Your task to perform on an android device: Show me the alarms in the clock app Image 0: 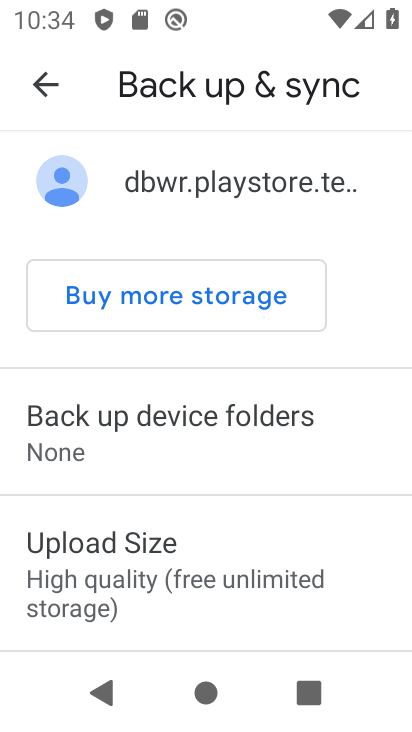
Step 0: press home button
Your task to perform on an android device: Show me the alarms in the clock app Image 1: 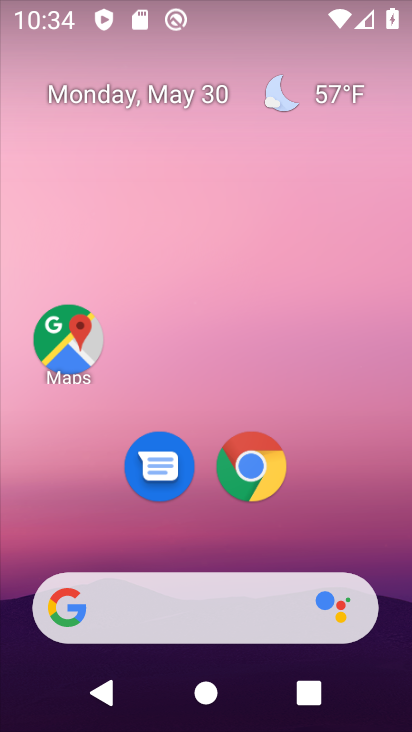
Step 1: drag from (126, 574) to (216, 76)
Your task to perform on an android device: Show me the alarms in the clock app Image 2: 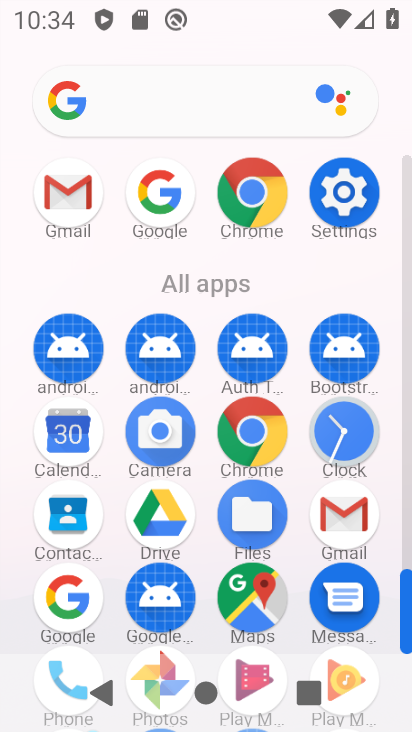
Step 2: click (351, 438)
Your task to perform on an android device: Show me the alarms in the clock app Image 3: 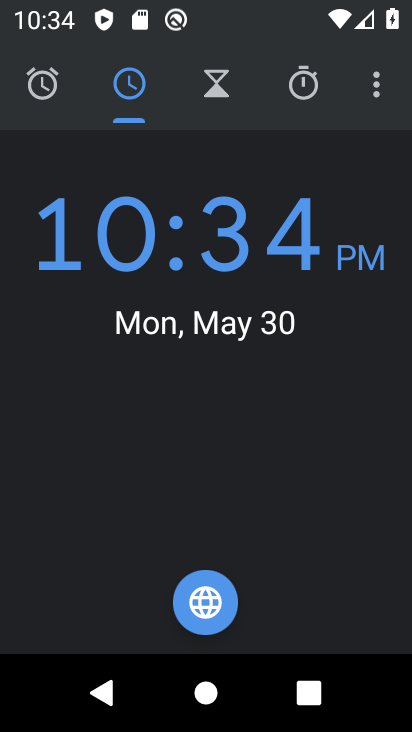
Step 3: click (75, 87)
Your task to perform on an android device: Show me the alarms in the clock app Image 4: 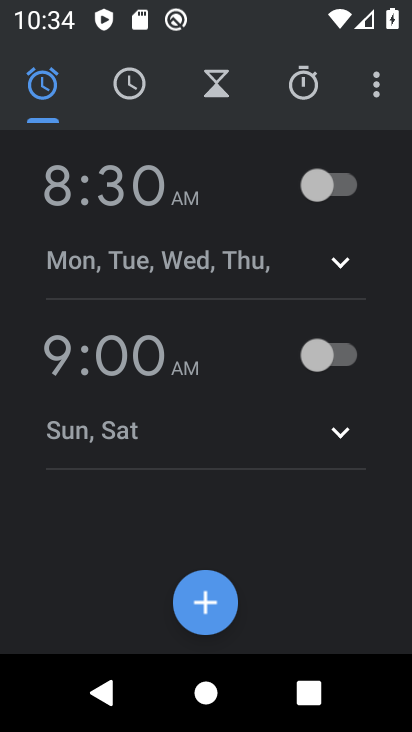
Step 4: task complete